Your task to perform on an android device: change alarm snooze length Image 0: 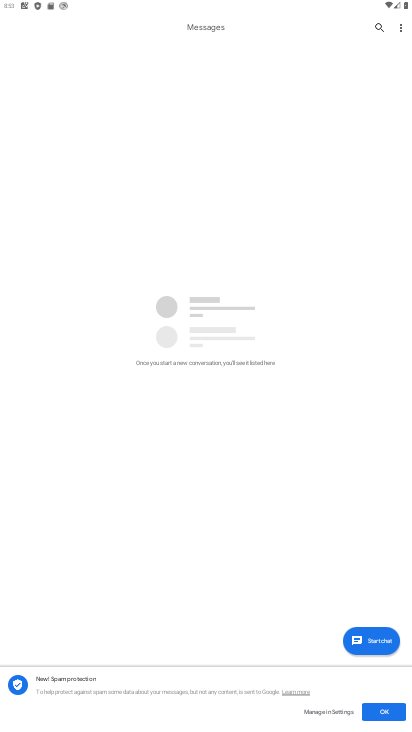
Step 0: press home button
Your task to perform on an android device: change alarm snooze length Image 1: 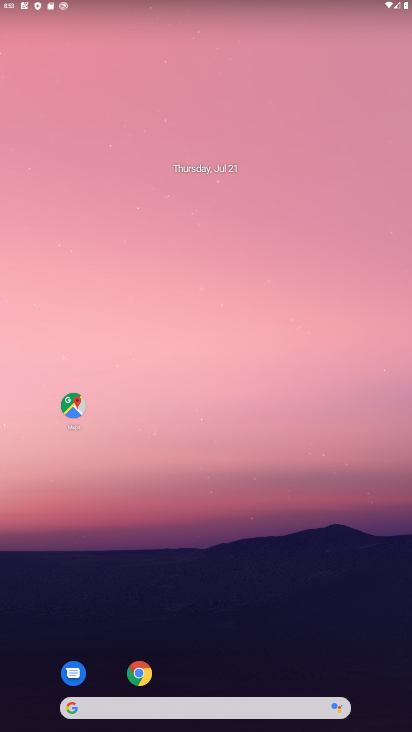
Step 1: drag from (253, 606) to (219, 236)
Your task to perform on an android device: change alarm snooze length Image 2: 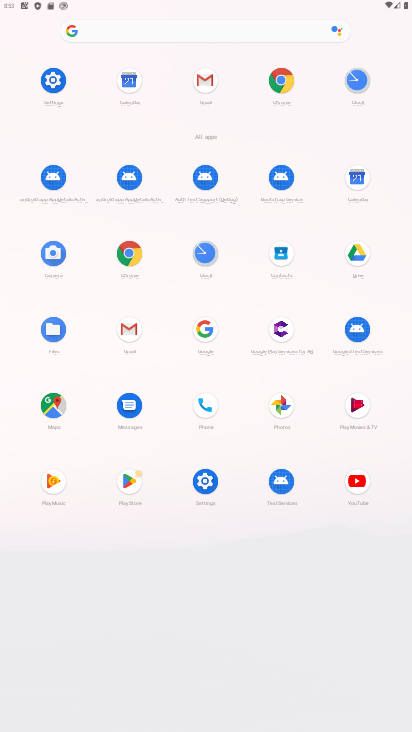
Step 2: click (210, 259)
Your task to perform on an android device: change alarm snooze length Image 3: 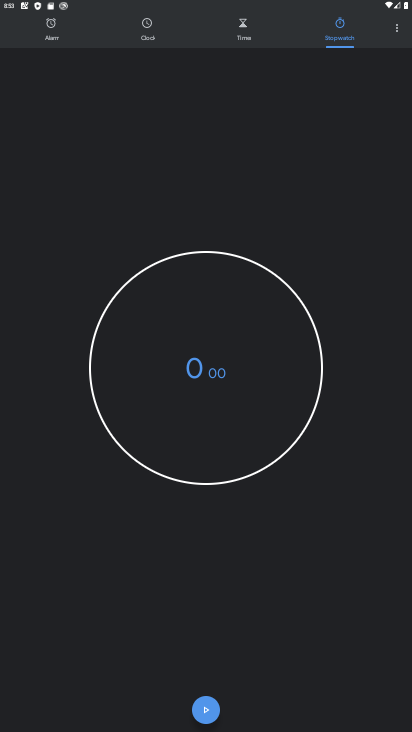
Step 3: click (396, 22)
Your task to perform on an android device: change alarm snooze length Image 4: 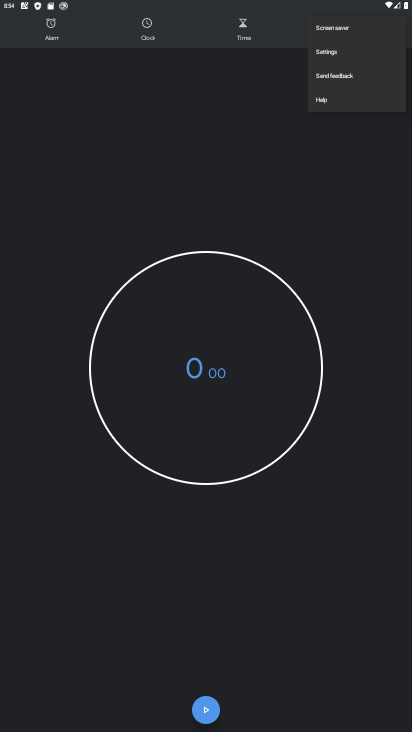
Step 4: click (345, 55)
Your task to perform on an android device: change alarm snooze length Image 5: 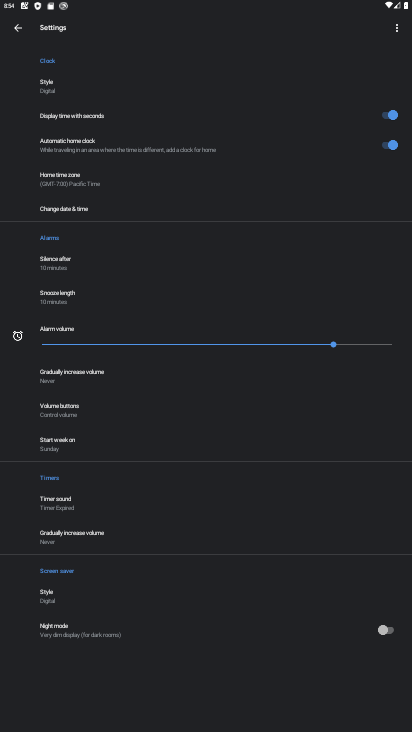
Step 5: click (78, 298)
Your task to perform on an android device: change alarm snooze length Image 6: 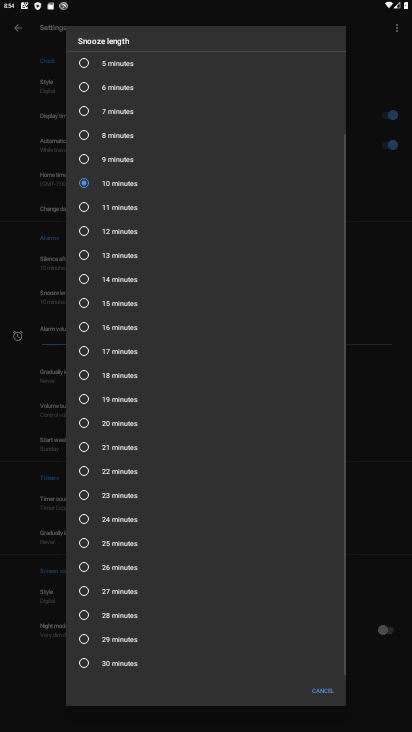
Step 6: click (122, 350)
Your task to perform on an android device: change alarm snooze length Image 7: 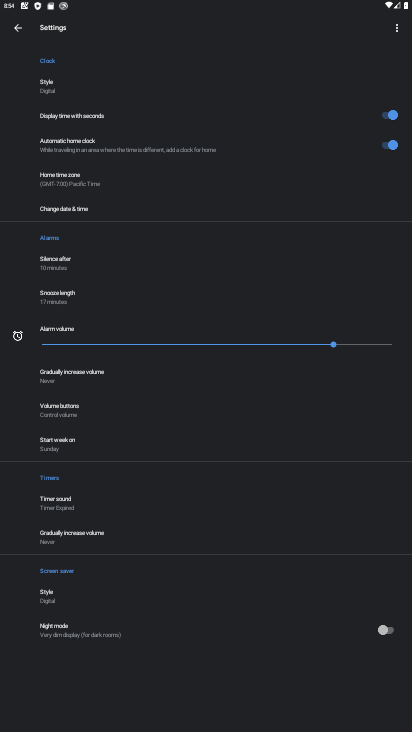
Step 7: task complete